Your task to perform on an android device: add a label to a message in the gmail app Image 0: 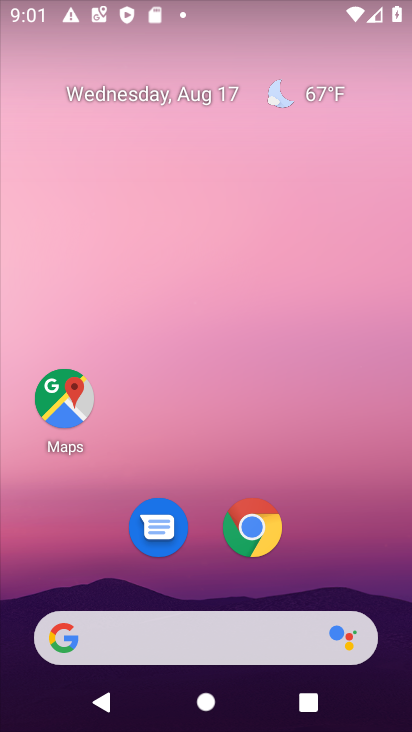
Step 0: drag from (219, 568) to (239, 55)
Your task to perform on an android device: add a label to a message in the gmail app Image 1: 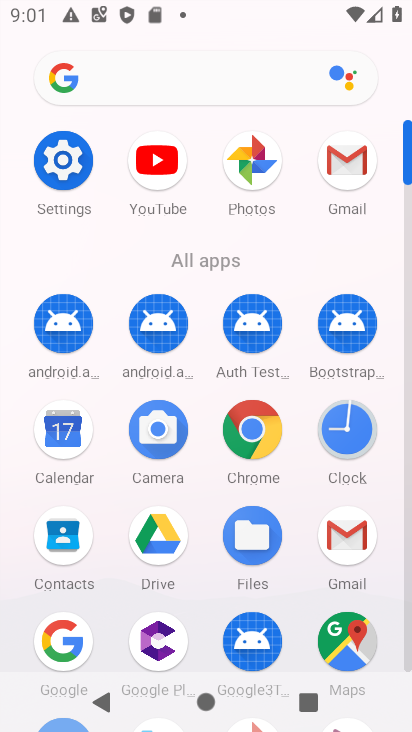
Step 1: click (357, 533)
Your task to perform on an android device: add a label to a message in the gmail app Image 2: 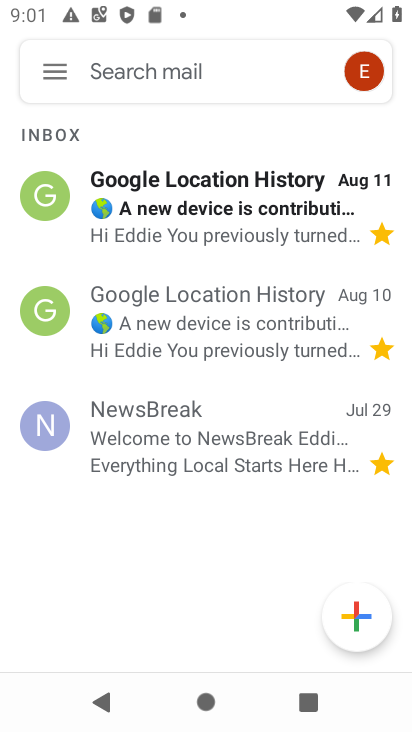
Step 2: click (42, 195)
Your task to perform on an android device: add a label to a message in the gmail app Image 3: 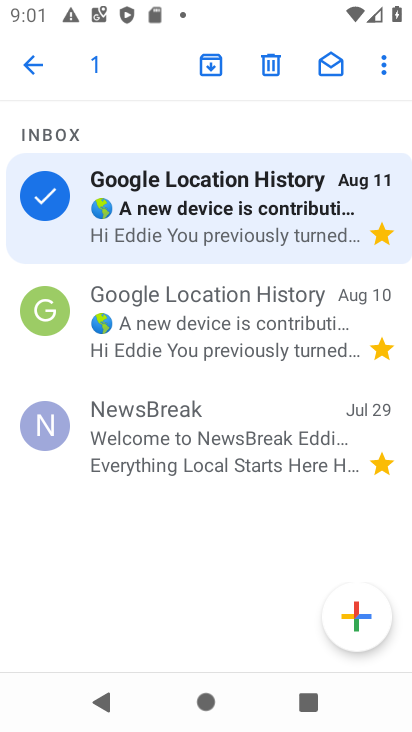
Step 3: click (391, 62)
Your task to perform on an android device: add a label to a message in the gmail app Image 4: 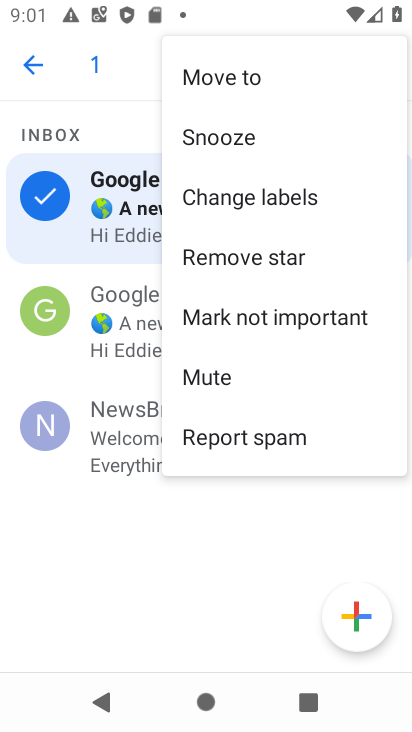
Step 4: click (266, 199)
Your task to perform on an android device: add a label to a message in the gmail app Image 5: 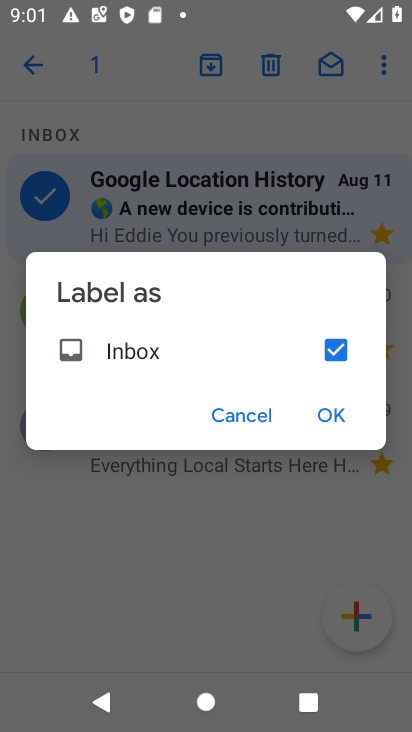
Step 5: click (331, 410)
Your task to perform on an android device: add a label to a message in the gmail app Image 6: 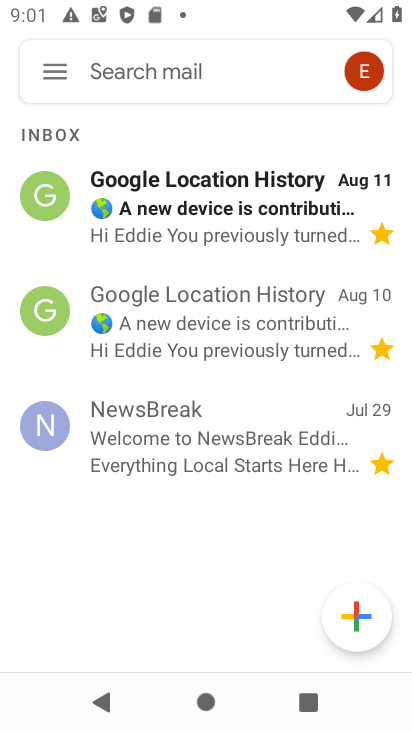
Step 6: task complete